Your task to perform on an android device: Go to internet settings Image 0: 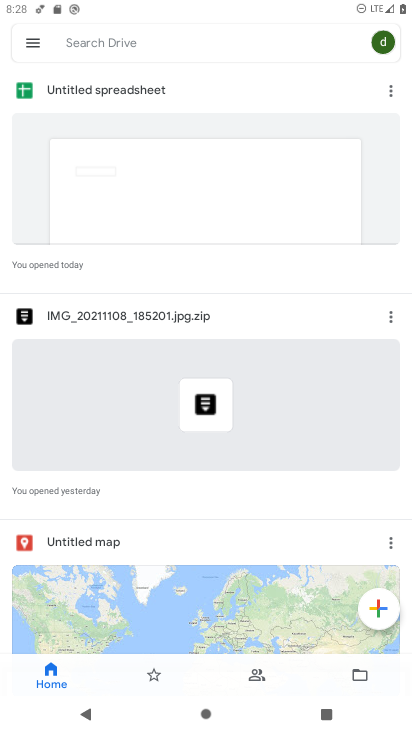
Step 0: press home button
Your task to perform on an android device: Go to internet settings Image 1: 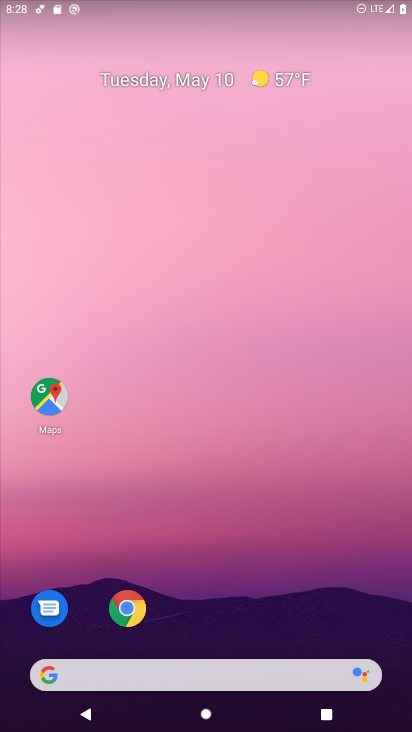
Step 1: drag from (356, 616) to (245, 84)
Your task to perform on an android device: Go to internet settings Image 2: 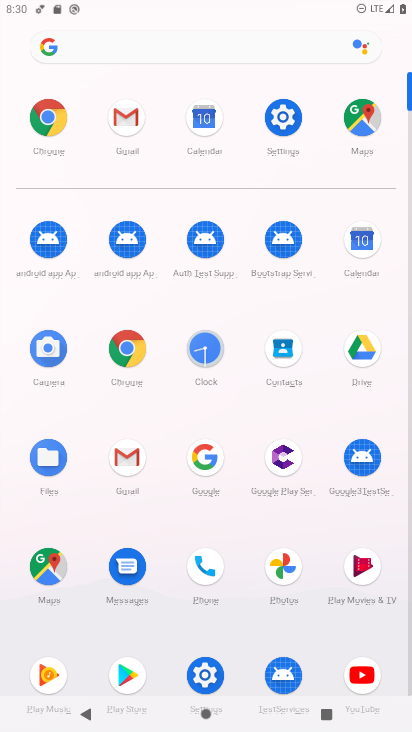
Step 2: click (206, 677)
Your task to perform on an android device: Go to internet settings Image 3: 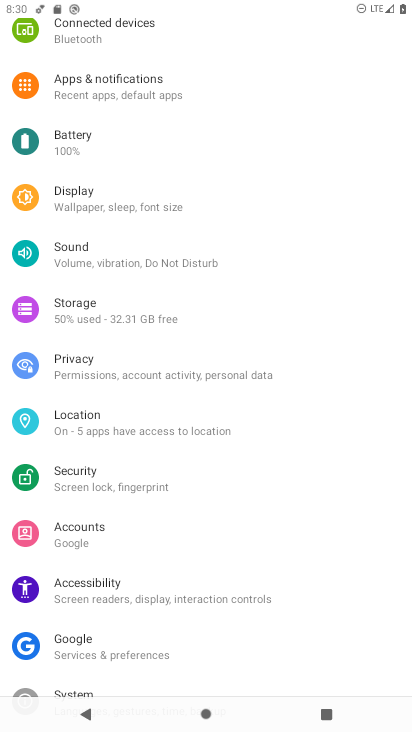
Step 3: drag from (208, 173) to (226, 540)
Your task to perform on an android device: Go to internet settings Image 4: 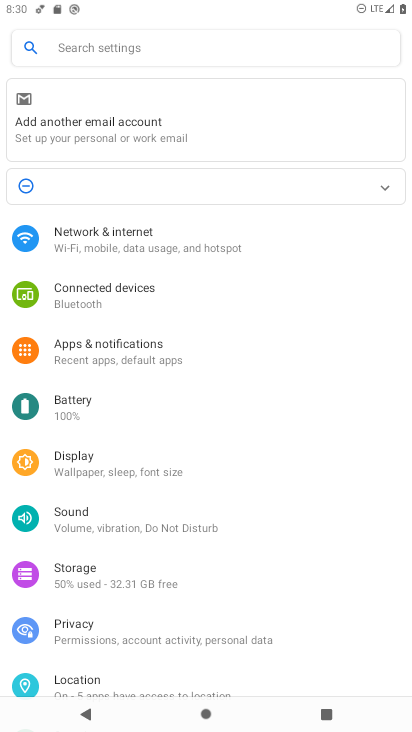
Step 4: click (158, 237)
Your task to perform on an android device: Go to internet settings Image 5: 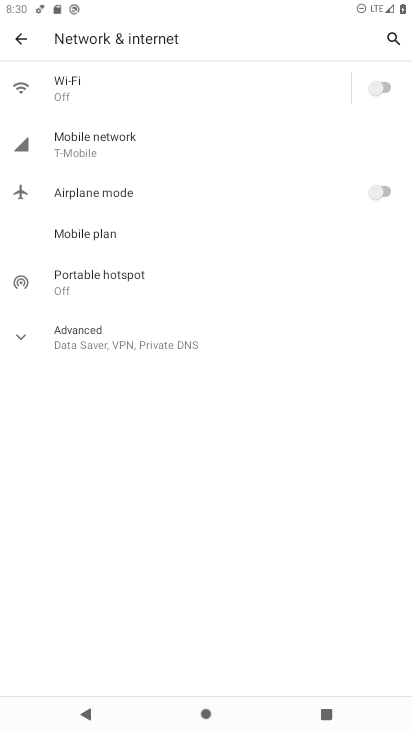
Step 5: task complete